Your task to perform on an android device: What's the weather going to be this weekend? Image 0: 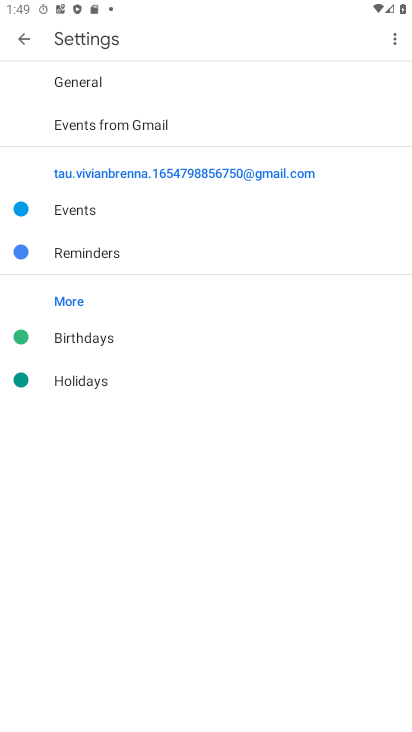
Step 0: press home button
Your task to perform on an android device: What's the weather going to be this weekend? Image 1: 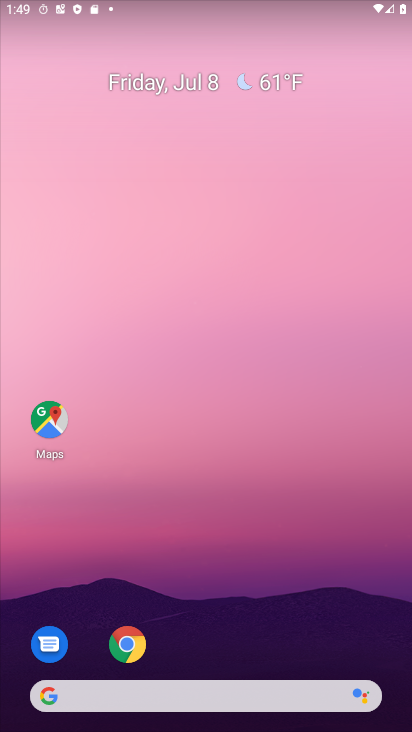
Step 1: click (192, 696)
Your task to perform on an android device: What's the weather going to be this weekend? Image 2: 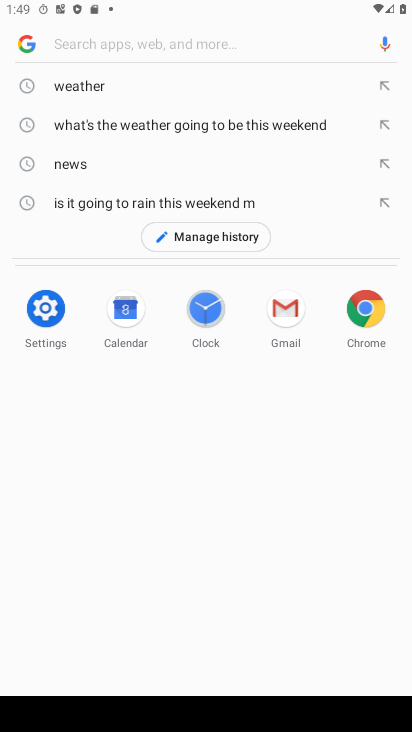
Step 2: click (72, 87)
Your task to perform on an android device: What's the weather going to be this weekend? Image 3: 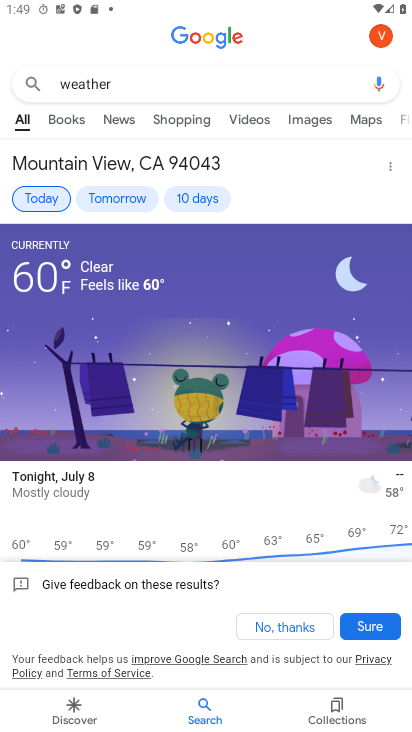
Step 3: task complete